Your task to perform on an android device: Open settings on Google Maps Image 0: 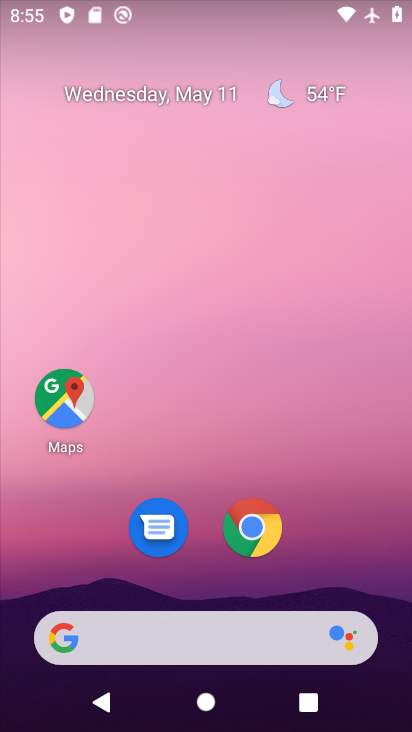
Step 0: click (35, 407)
Your task to perform on an android device: Open settings on Google Maps Image 1: 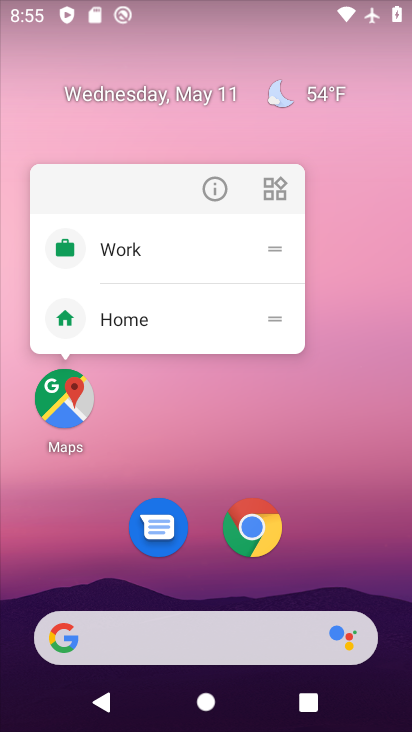
Step 1: click (59, 404)
Your task to perform on an android device: Open settings on Google Maps Image 2: 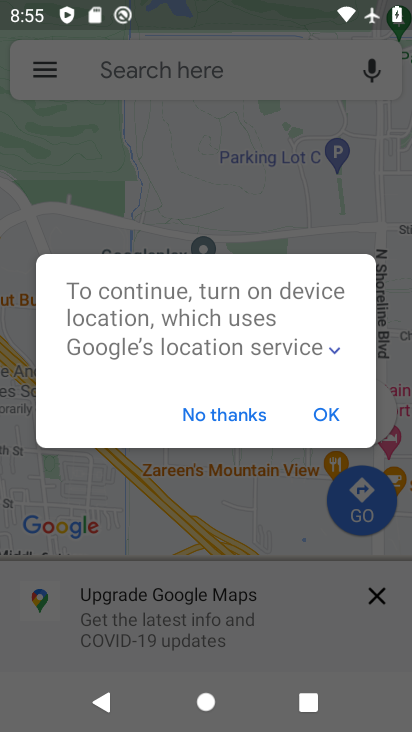
Step 2: click (50, 68)
Your task to perform on an android device: Open settings on Google Maps Image 3: 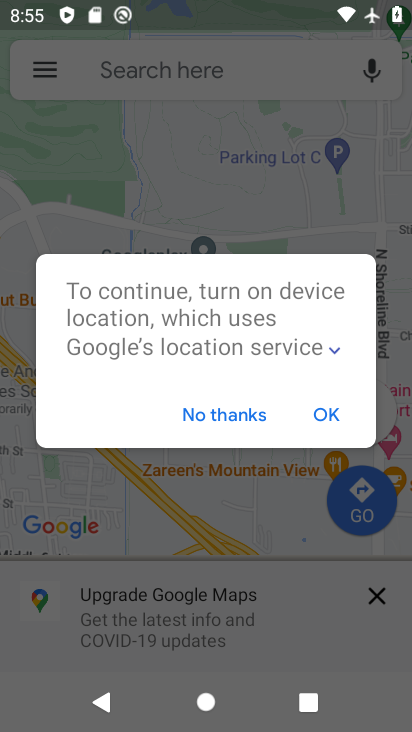
Step 3: click (322, 414)
Your task to perform on an android device: Open settings on Google Maps Image 4: 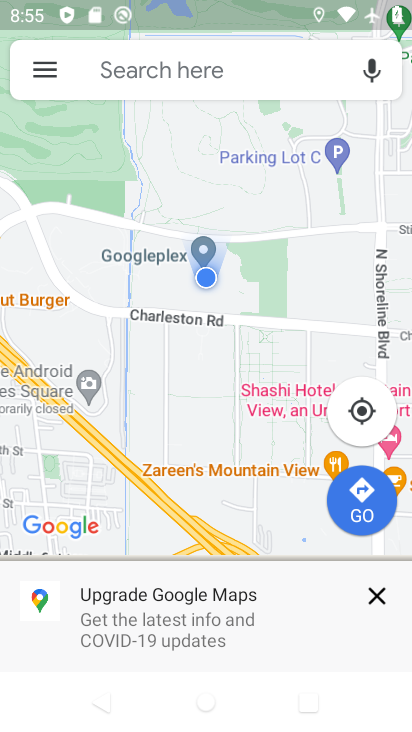
Step 4: click (47, 68)
Your task to perform on an android device: Open settings on Google Maps Image 5: 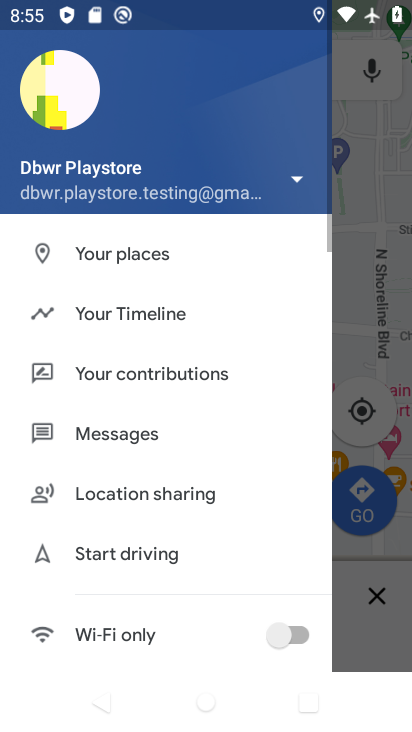
Step 5: drag from (59, 77) to (147, 380)
Your task to perform on an android device: Open settings on Google Maps Image 6: 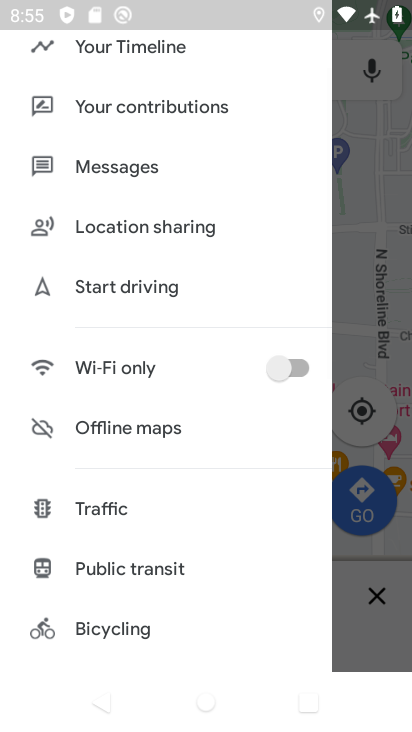
Step 6: drag from (152, 591) to (162, 161)
Your task to perform on an android device: Open settings on Google Maps Image 7: 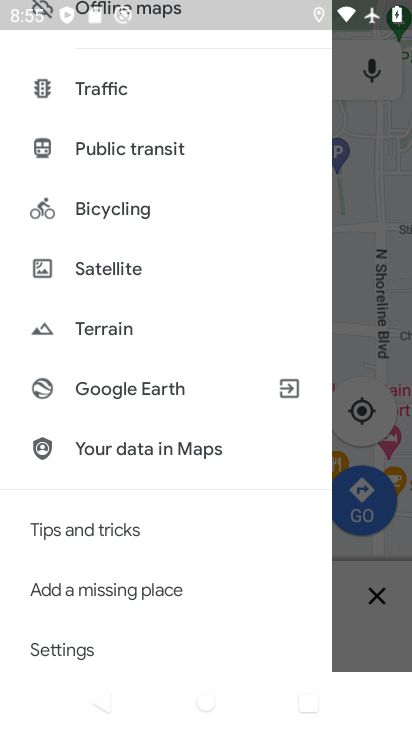
Step 7: click (86, 648)
Your task to perform on an android device: Open settings on Google Maps Image 8: 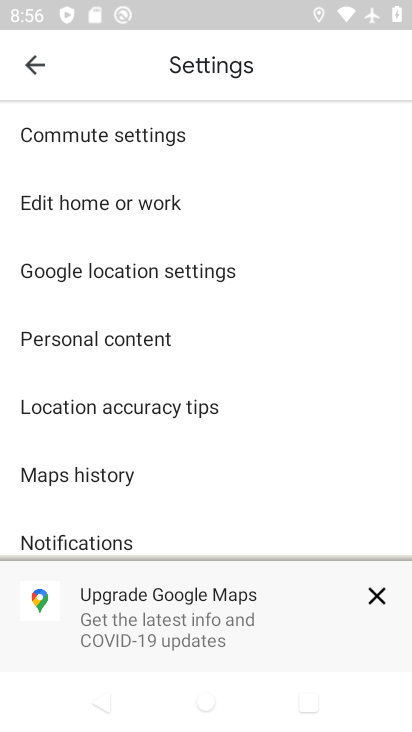
Step 8: task complete